Your task to perform on an android device: turn off smart reply in the gmail app Image 0: 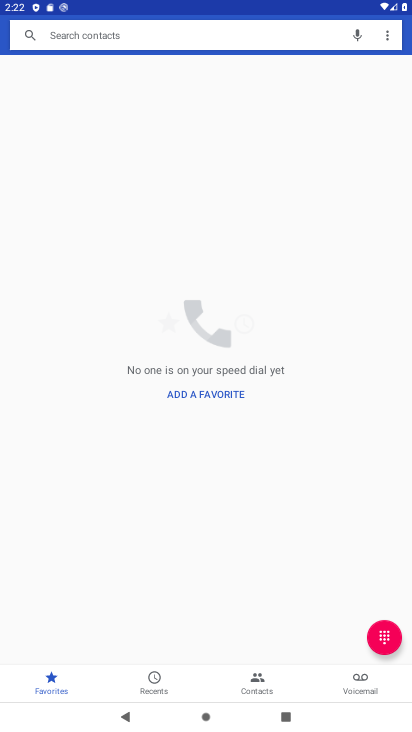
Step 0: press home button
Your task to perform on an android device: turn off smart reply in the gmail app Image 1: 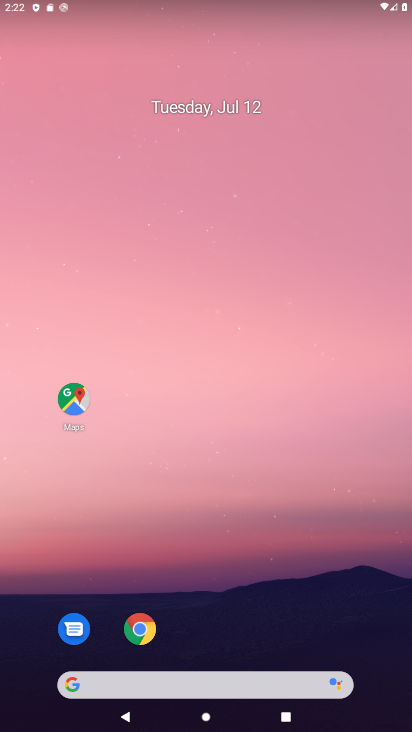
Step 1: drag from (344, 679) to (294, 213)
Your task to perform on an android device: turn off smart reply in the gmail app Image 2: 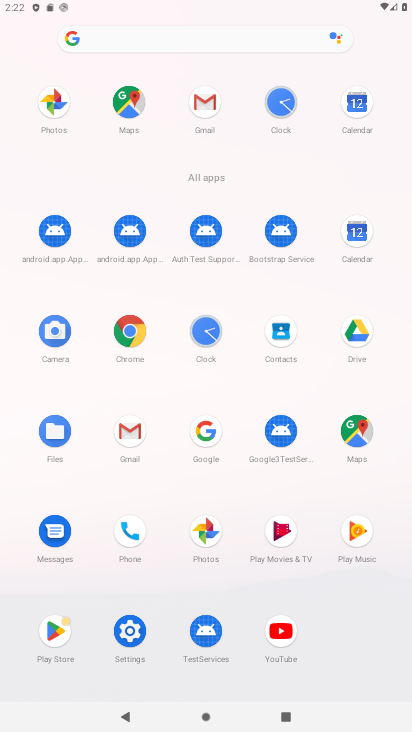
Step 2: click (129, 428)
Your task to perform on an android device: turn off smart reply in the gmail app Image 3: 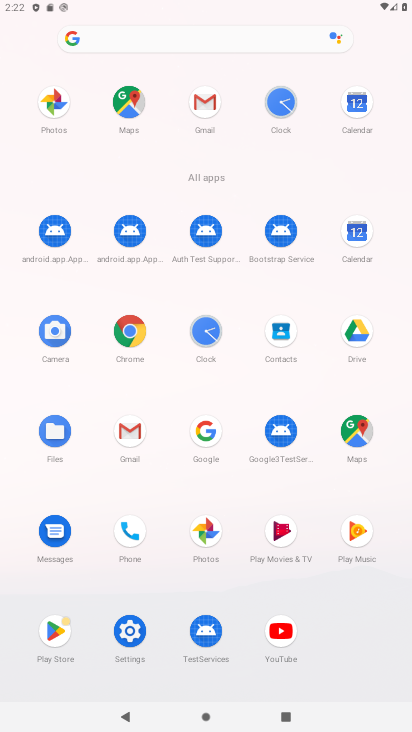
Step 3: click (137, 628)
Your task to perform on an android device: turn off smart reply in the gmail app Image 4: 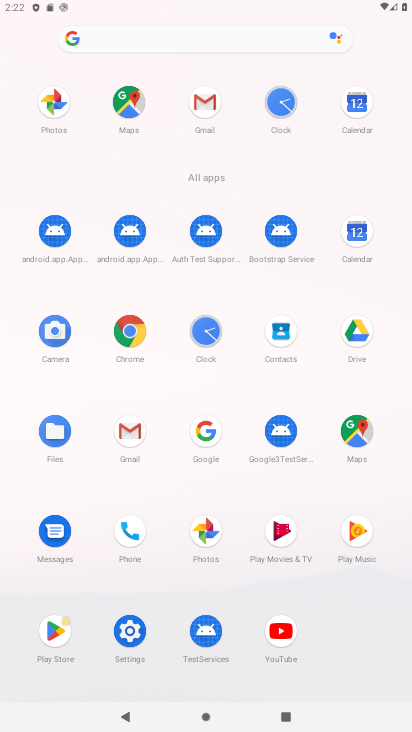
Step 4: click (119, 422)
Your task to perform on an android device: turn off smart reply in the gmail app Image 5: 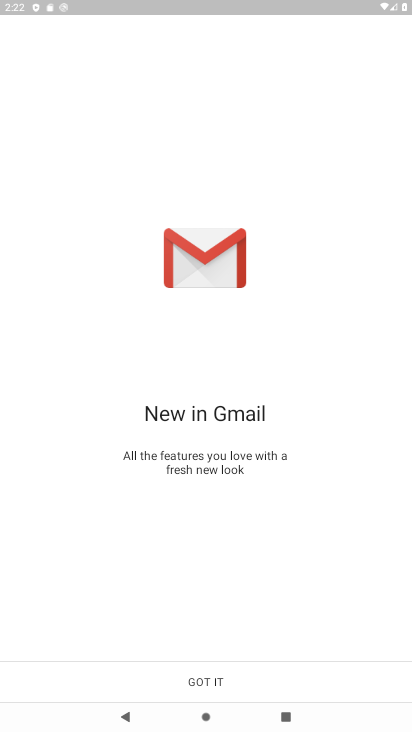
Step 5: click (216, 681)
Your task to perform on an android device: turn off smart reply in the gmail app Image 6: 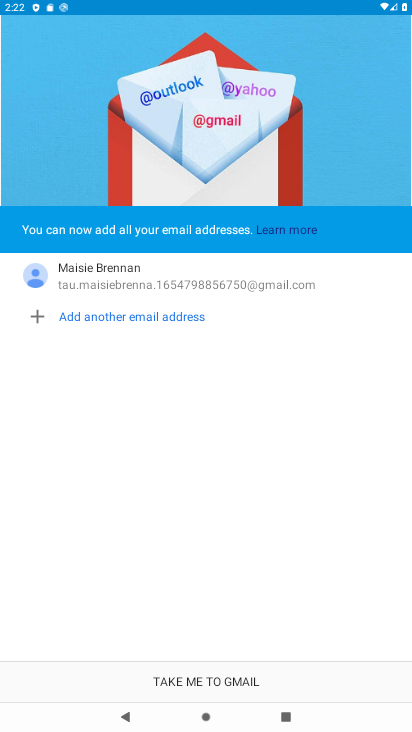
Step 6: click (216, 681)
Your task to perform on an android device: turn off smart reply in the gmail app Image 7: 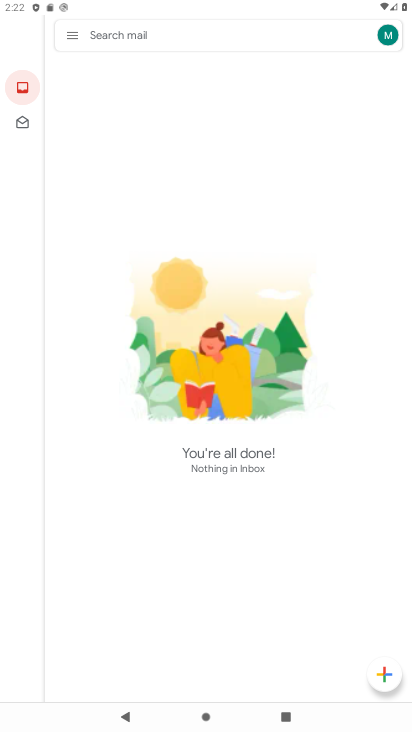
Step 7: click (69, 38)
Your task to perform on an android device: turn off smart reply in the gmail app Image 8: 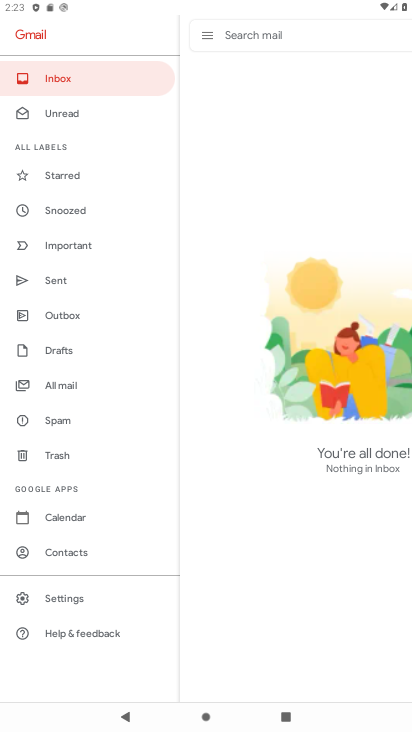
Step 8: click (51, 598)
Your task to perform on an android device: turn off smart reply in the gmail app Image 9: 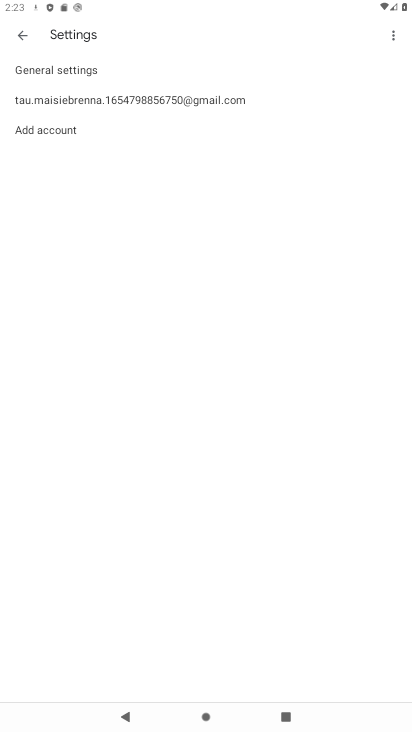
Step 9: click (189, 101)
Your task to perform on an android device: turn off smart reply in the gmail app Image 10: 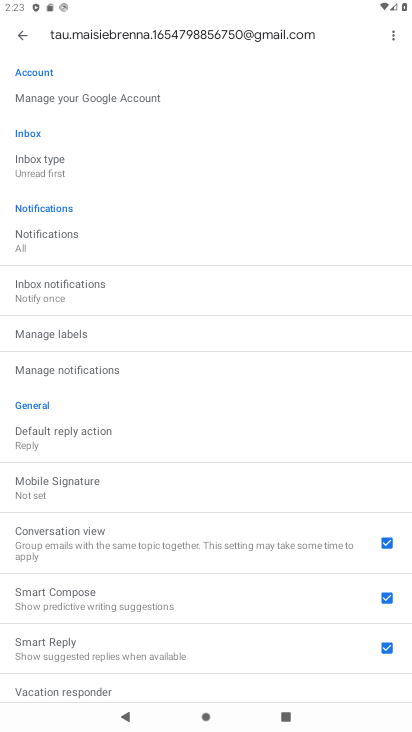
Step 10: drag from (152, 639) to (161, 384)
Your task to perform on an android device: turn off smart reply in the gmail app Image 11: 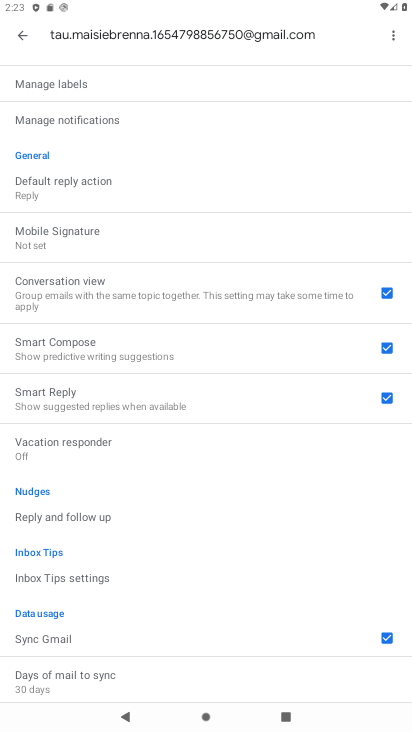
Step 11: click (384, 397)
Your task to perform on an android device: turn off smart reply in the gmail app Image 12: 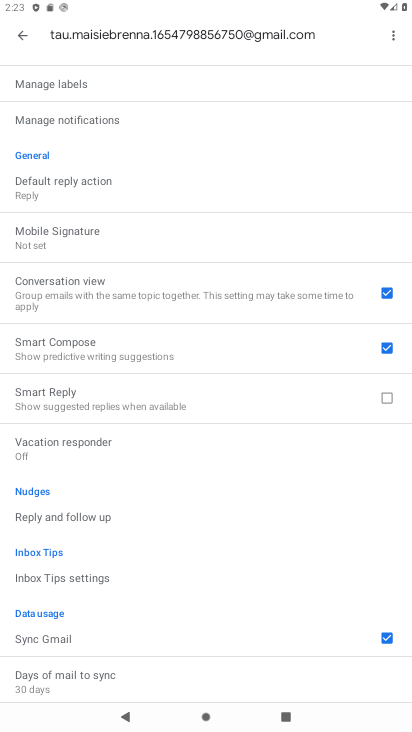
Step 12: task complete